Your task to perform on an android device: Go to Android settings Image 0: 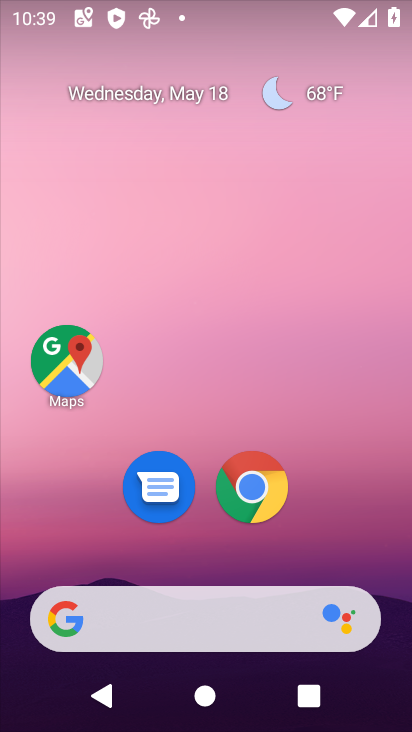
Step 0: press home button
Your task to perform on an android device: Go to Android settings Image 1: 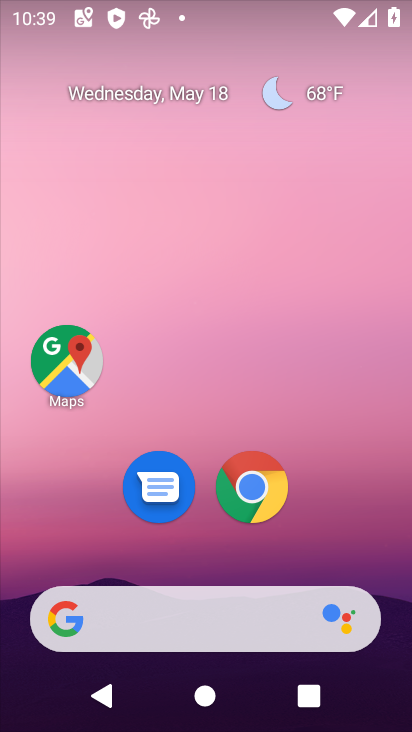
Step 1: drag from (358, 527) to (362, 83)
Your task to perform on an android device: Go to Android settings Image 2: 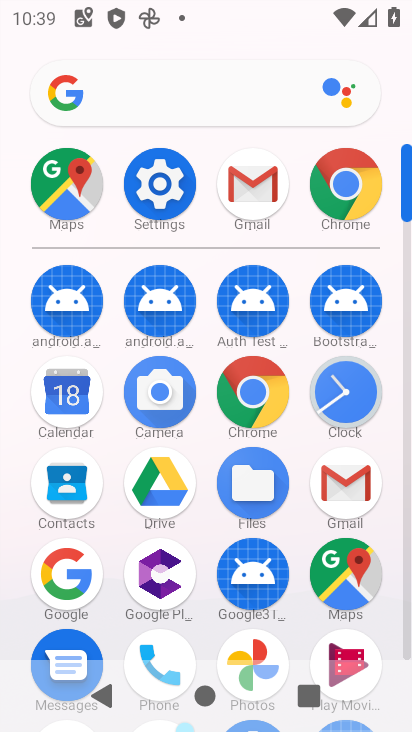
Step 2: click (159, 190)
Your task to perform on an android device: Go to Android settings Image 3: 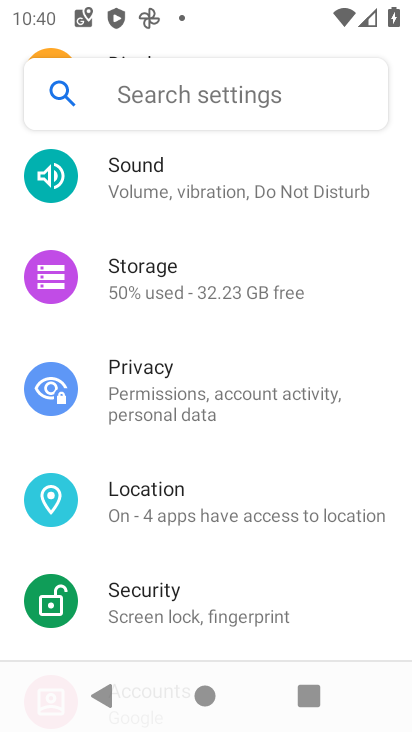
Step 3: task complete